Your task to perform on an android device: Open the calendar and show me this week's events Image 0: 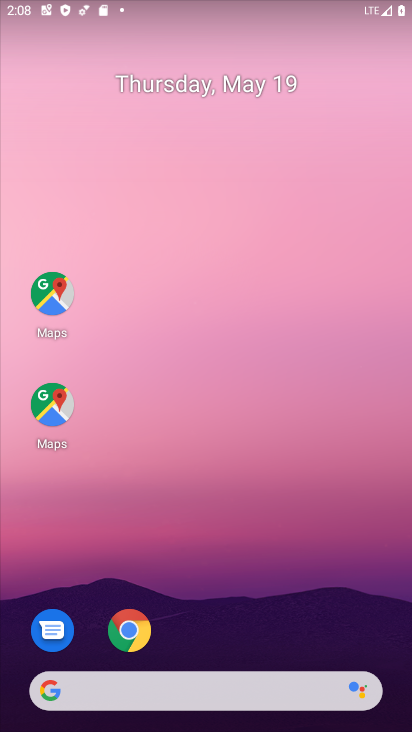
Step 0: drag from (242, 448) to (235, 21)
Your task to perform on an android device: Open the calendar and show me this week's events Image 1: 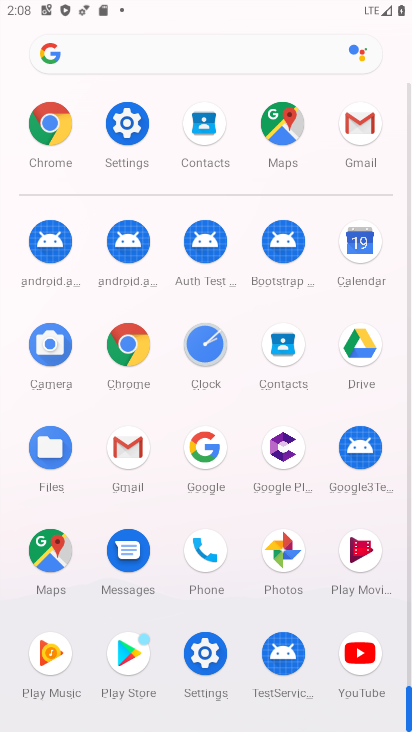
Step 1: drag from (11, 541) to (23, 207)
Your task to perform on an android device: Open the calendar and show me this week's events Image 2: 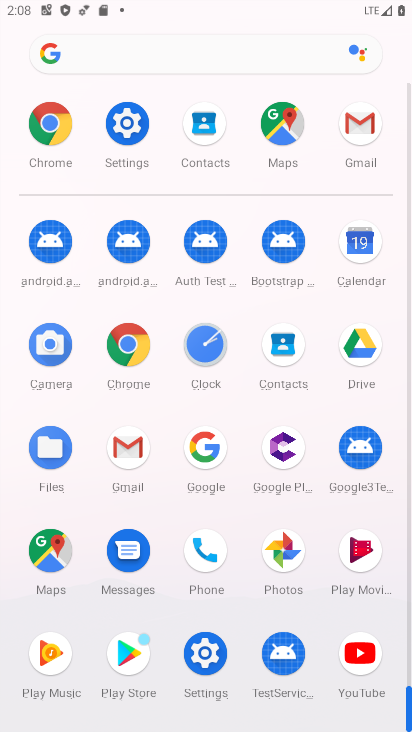
Step 2: drag from (19, 541) to (22, 283)
Your task to perform on an android device: Open the calendar and show me this week's events Image 3: 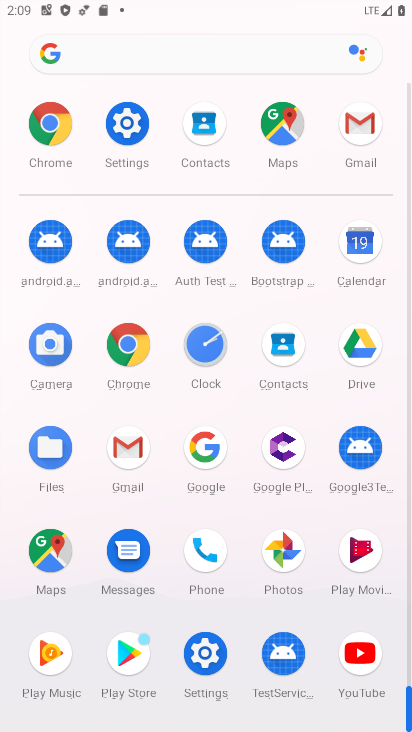
Step 3: click (363, 235)
Your task to perform on an android device: Open the calendar and show me this week's events Image 4: 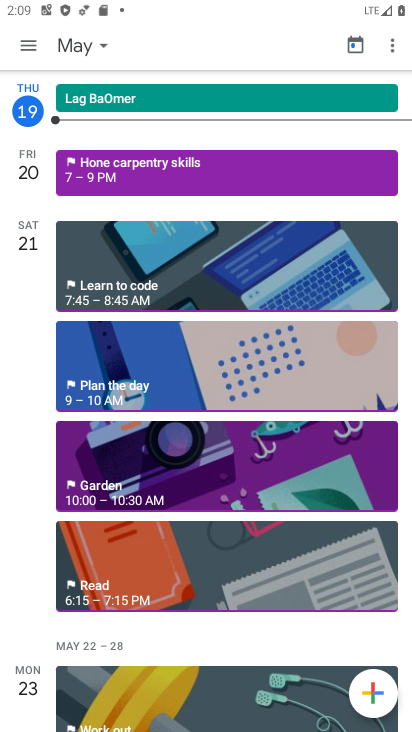
Step 4: click (25, 40)
Your task to perform on an android device: Open the calendar and show me this week's events Image 5: 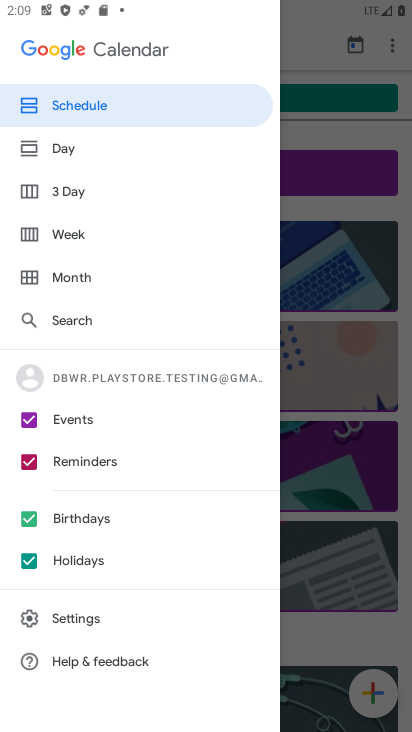
Step 5: click (271, 276)
Your task to perform on an android device: Open the calendar and show me this week's events Image 6: 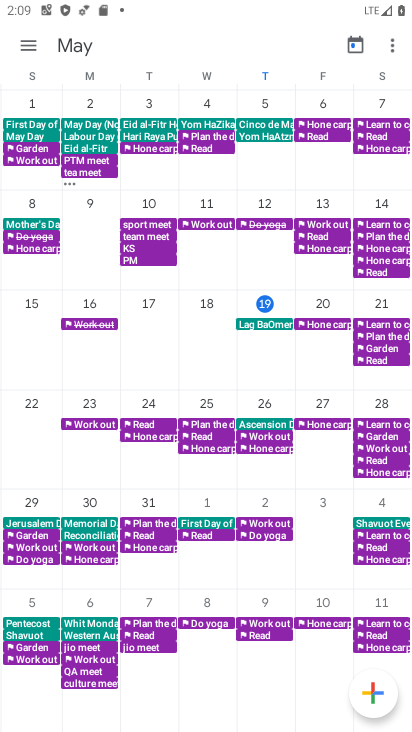
Step 6: click (31, 44)
Your task to perform on an android device: Open the calendar and show me this week's events Image 7: 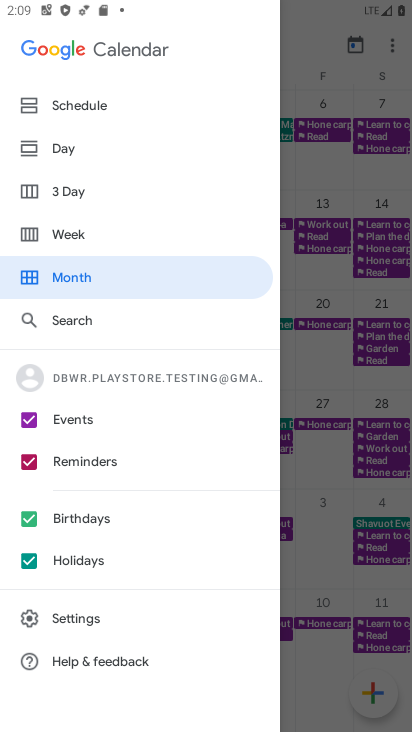
Step 7: click (81, 221)
Your task to perform on an android device: Open the calendar and show me this week's events Image 8: 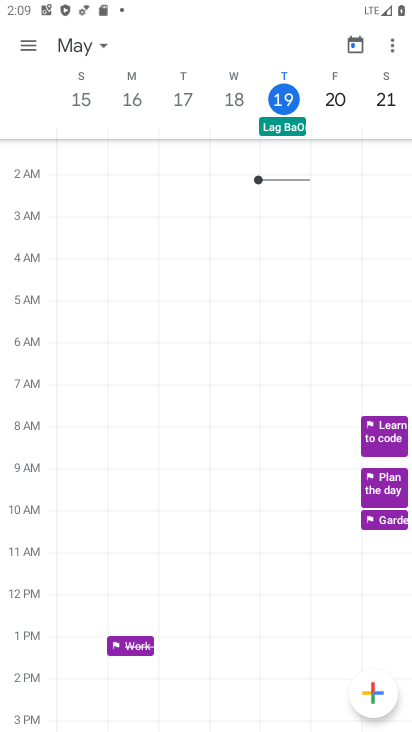
Step 8: task complete